Your task to perform on an android device: all mails in gmail Image 0: 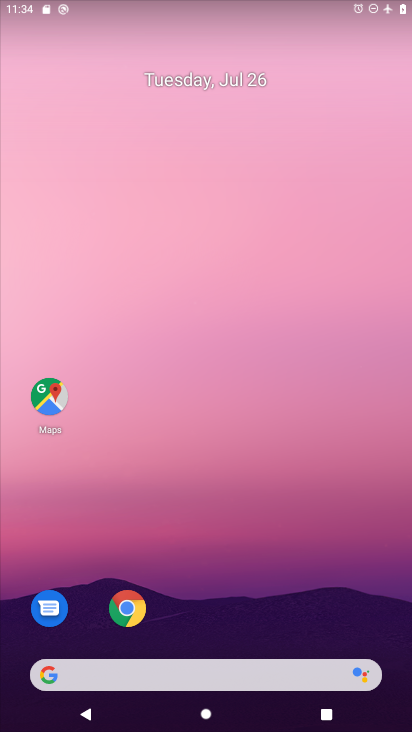
Step 0: drag from (301, 449) to (286, 3)
Your task to perform on an android device: all mails in gmail Image 1: 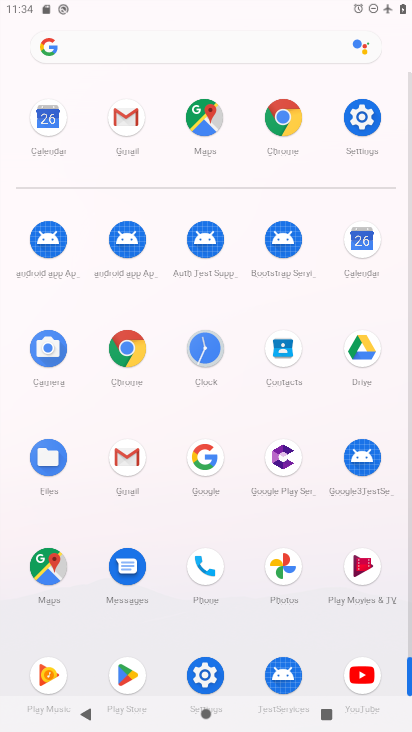
Step 1: click (125, 114)
Your task to perform on an android device: all mails in gmail Image 2: 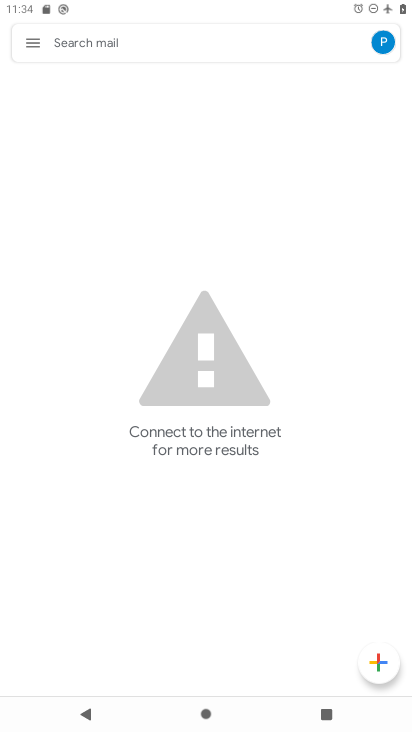
Step 2: click (22, 43)
Your task to perform on an android device: all mails in gmail Image 3: 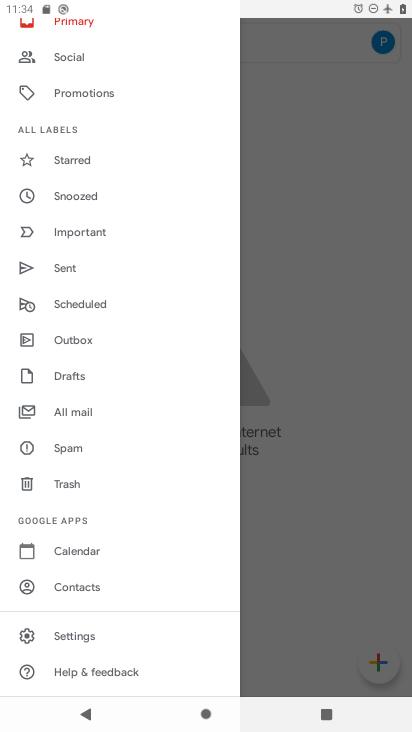
Step 3: click (85, 415)
Your task to perform on an android device: all mails in gmail Image 4: 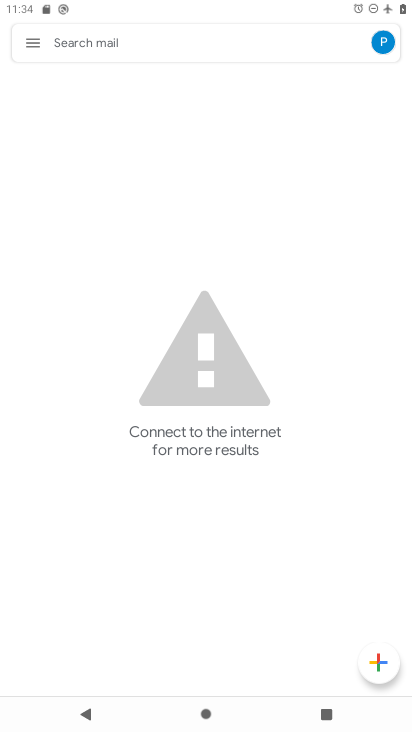
Step 4: task complete